Your task to perform on an android device: delete a single message in the gmail app Image 0: 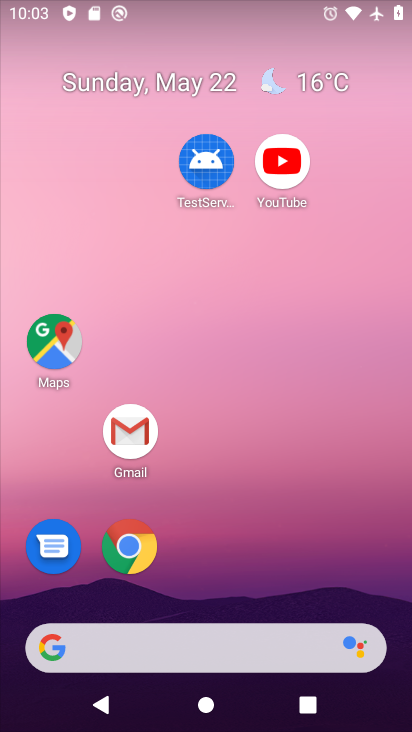
Step 0: drag from (264, 714) to (149, 0)
Your task to perform on an android device: delete a single message in the gmail app Image 1: 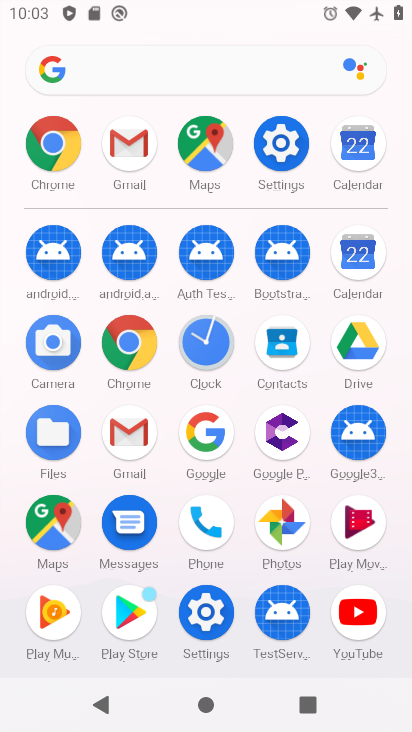
Step 1: click (151, 449)
Your task to perform on an android device: delete a single message in the gmail app Image 2: 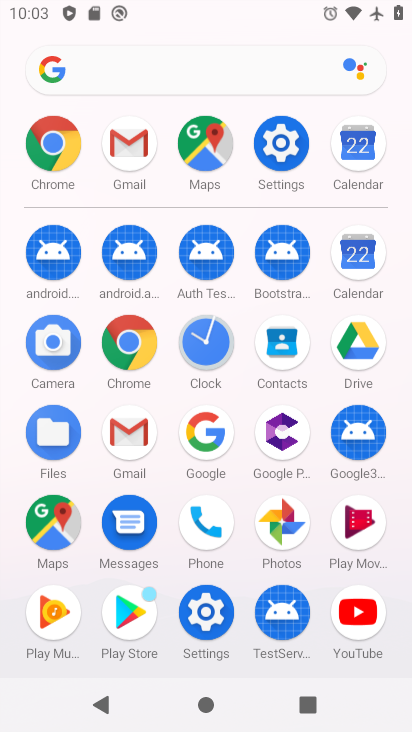
Step 2: click (132, 433)
Your task to perform on an android device: delete a single message in the gmail app Image 3: 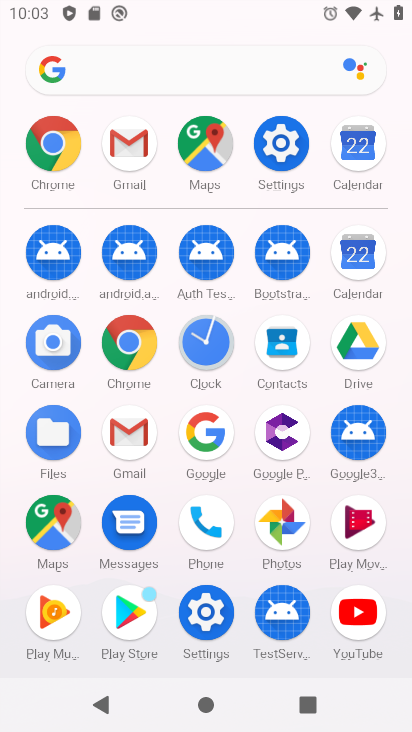
Step 3: click (129, 431)
Your task to perform on an android device: delete a single message in the gmail app Image 4: 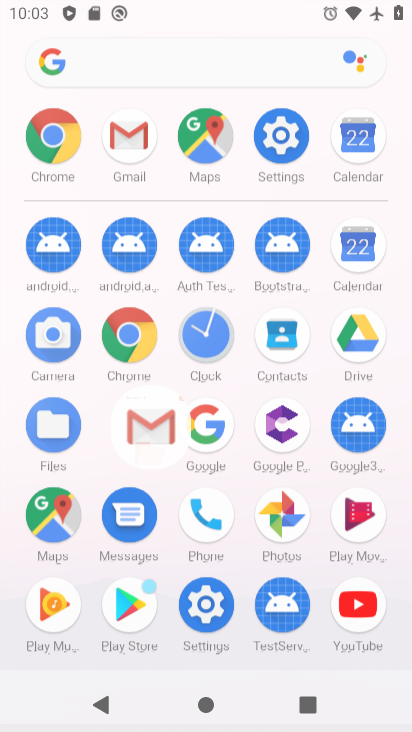
Step 4: click (129, 431)
Your task to perform on an android device: delete a single message in the gmail app Image 5: 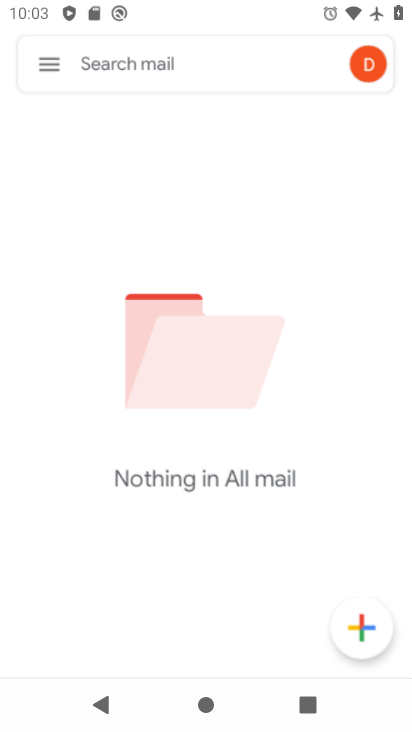
Step 5: click (133, 430)
Your task to perform on an android device: delete a single message in the gmail app Image 6: 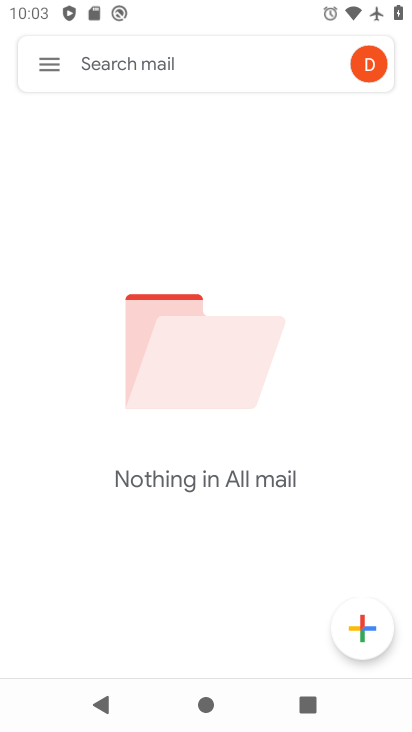
Step 6: click (134, 429)
Your task to perform on an android device: delete a single message in the gmail app Image 7: 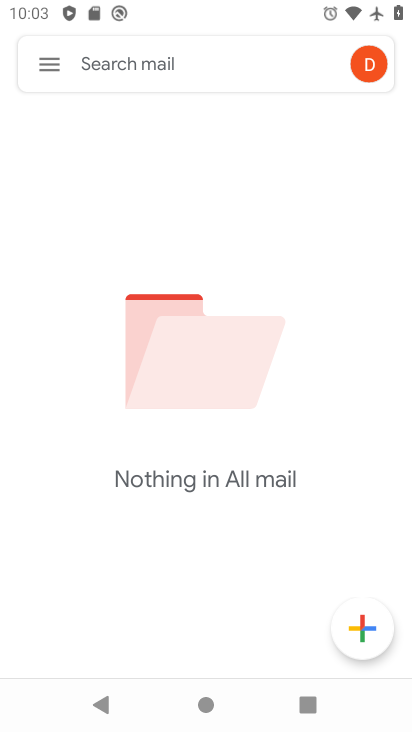
Step 7: click (47, 69)
Your task to perform on an android device: delete a single message in the gmail app Image 8: 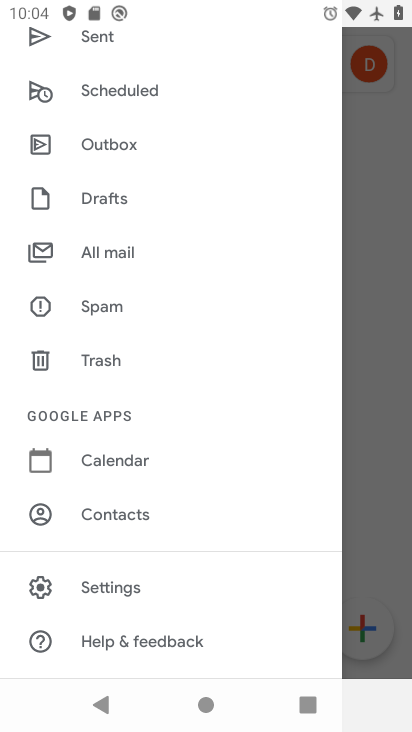
Step 8: click (87, 256)
Your task to perform on an android device: delete a single message in the gmail app Image 9: 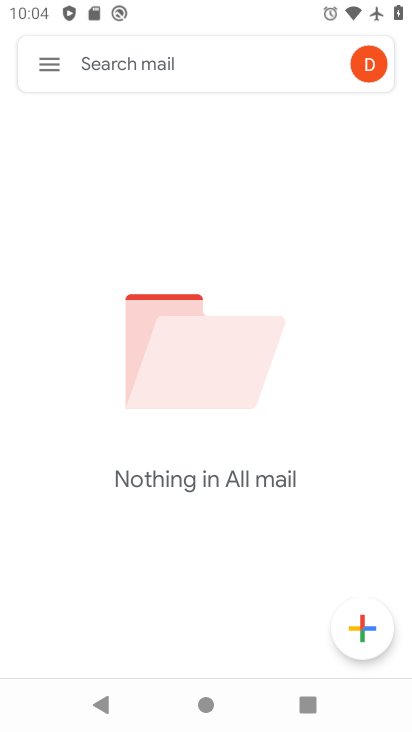
Step 9: task complete